Your task to perform on an android device: Go to calendar. Show me events next week Image 0: 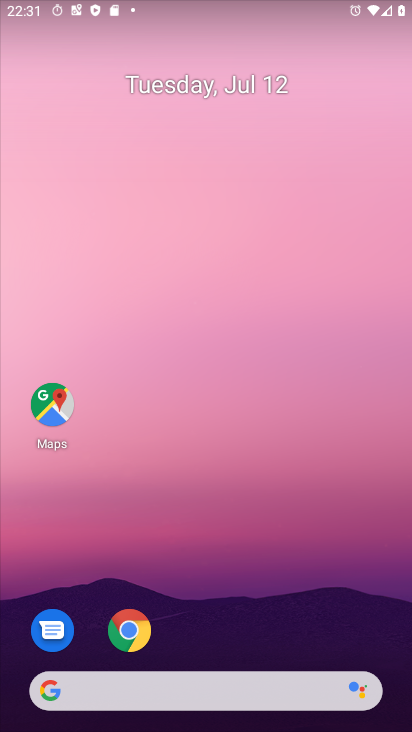
Step 0: drag from (255, 450) to (296, 1)
Your task to perform on an android device: Go to calendar. Show me events next week Image 1: 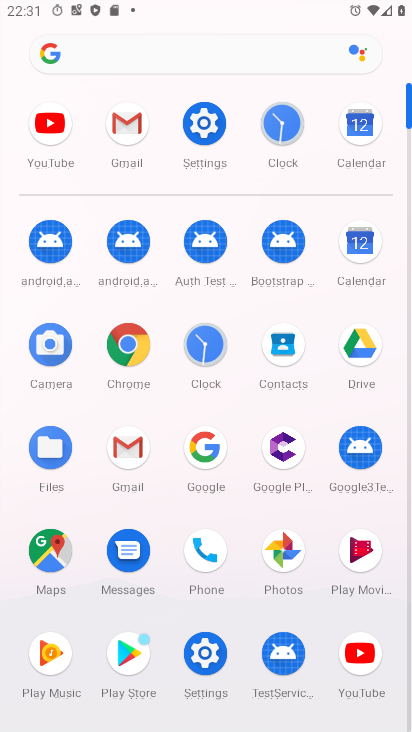
Step 1: click (366, 245)
Your task to perform on an android device: Go to calendar. Show me events next week Image 2: 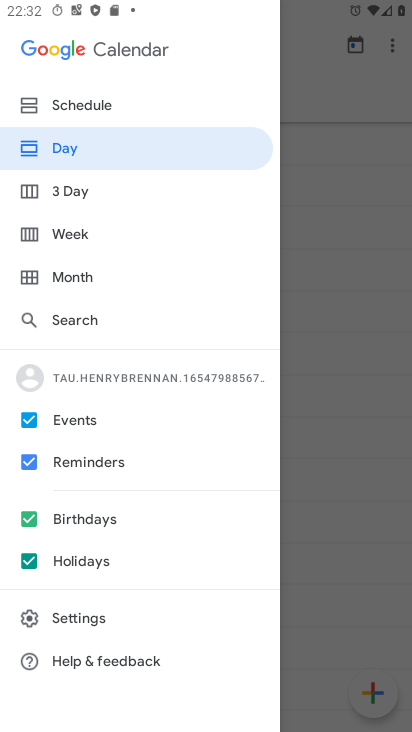
Step 2: click (149, 96)
Your task to perform on an android device: Go to calendar. Show me events next week Image 3: 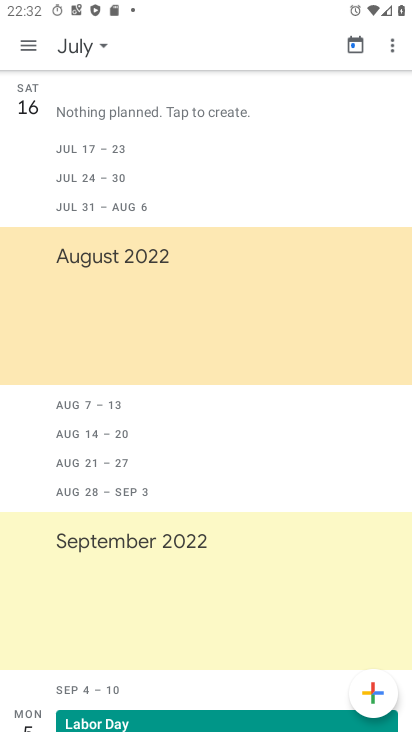
Step 3: click (105, 43)
Your task to perform on an android device: Go to calendar. Show me events next week Image 4: 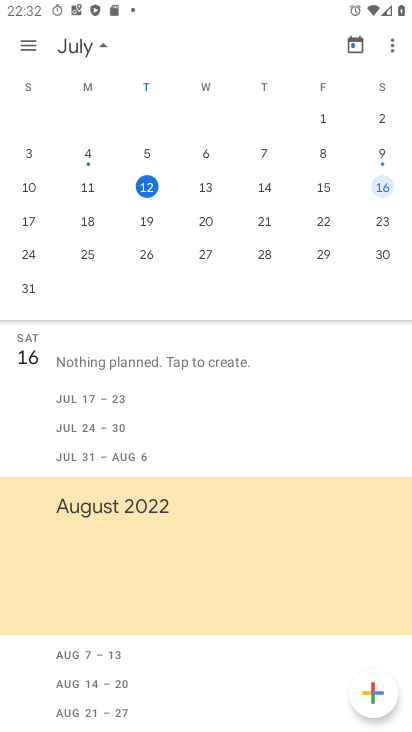
Step 4: click (84, 219)
Your task to perform on an android device: Go to calendar. Show me events next week Image 5: 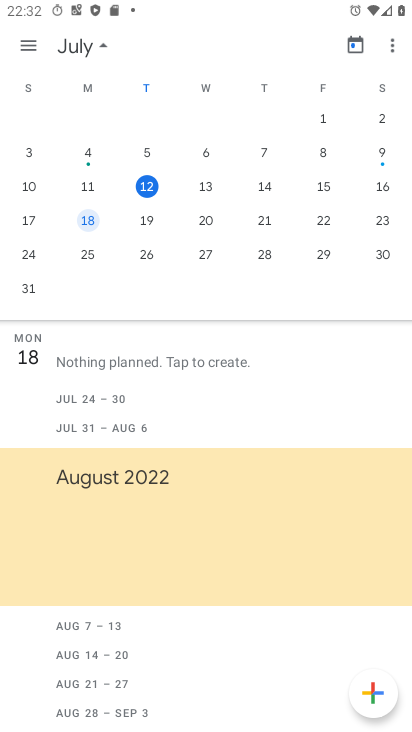
Step 5: task complete